Your task to perform on an android device: turn notification dots on Image 0: 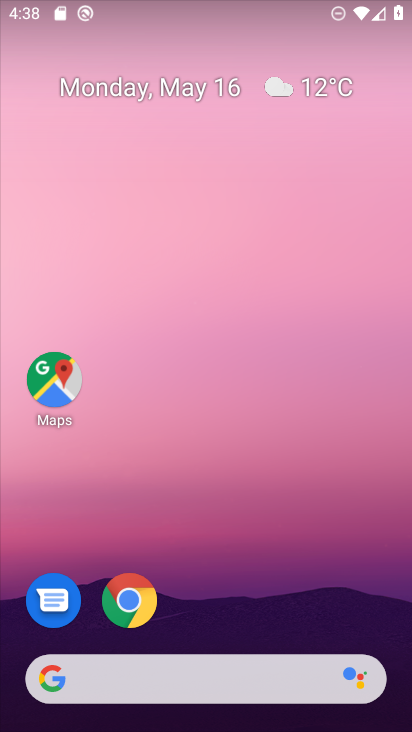
Step 0: drag from (304, 595) to (284, 32)
Your task to perform on an android device: turn notification dots on Image 1: 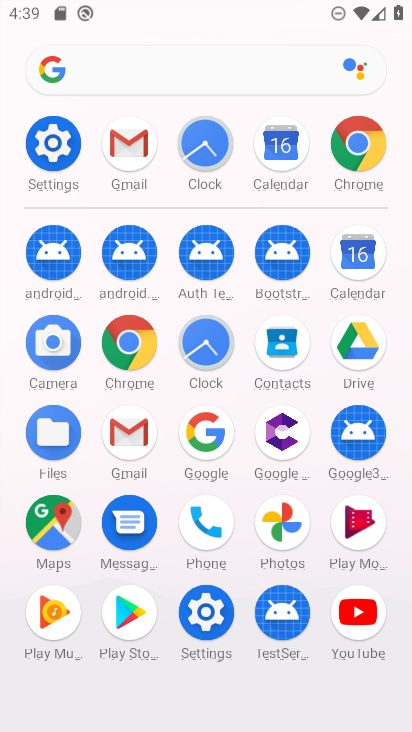
Step 1: click (50, 140)
Your task to perform on an android device: turn notification dots on Image 2: 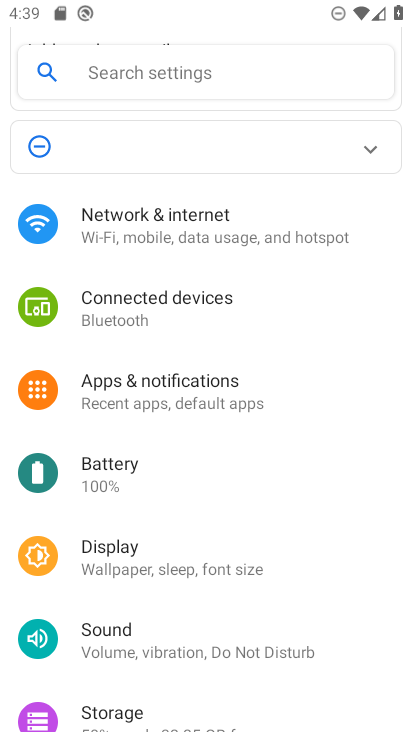
Step 2: click (168, 390)
Your task to perform on an android device: turn notification dots on Image 3: 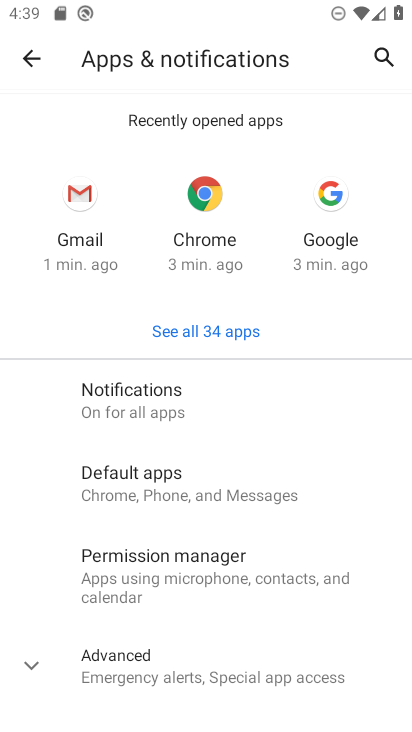
Step 3: click (168, 406)
Your task to perform on an android device: turn notification dots on Image 4: 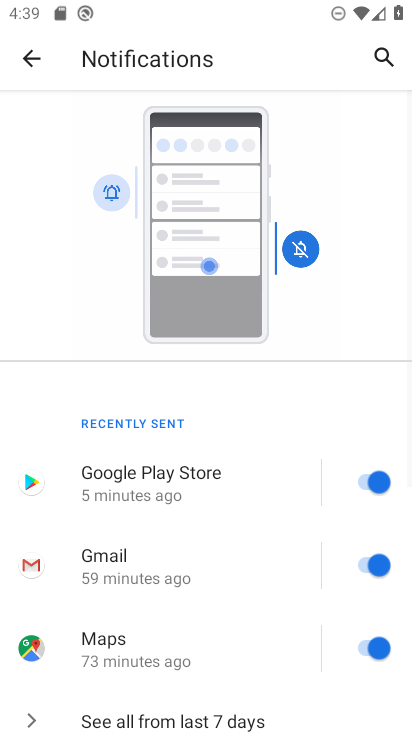
Step 4: drag from (243, 608) to (253, 14)
Your task to perform on an android device: turn notification dots on Image 5: 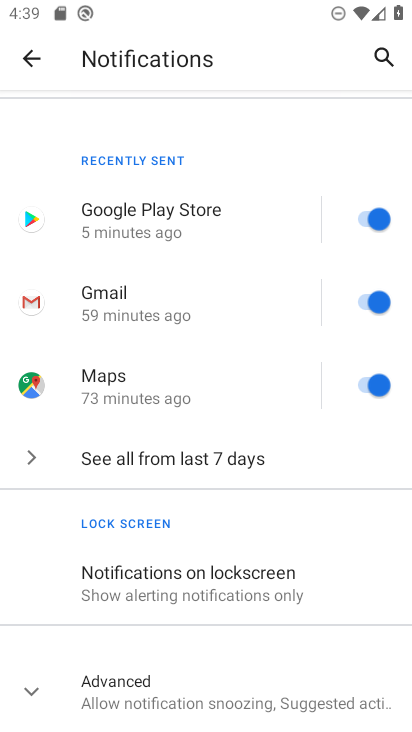
Step 5: click (161, 676)
Your task to perform on an android device: turn notification dots on Image 6: 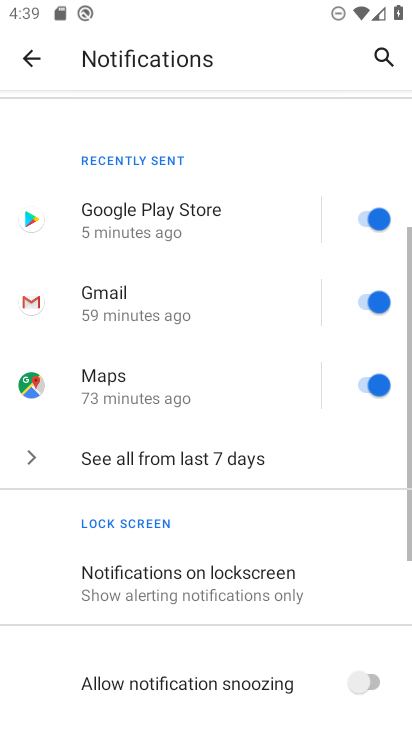
Step 6: task complete